Your task to perform on an android device: Go to Wikipedia Image 0: 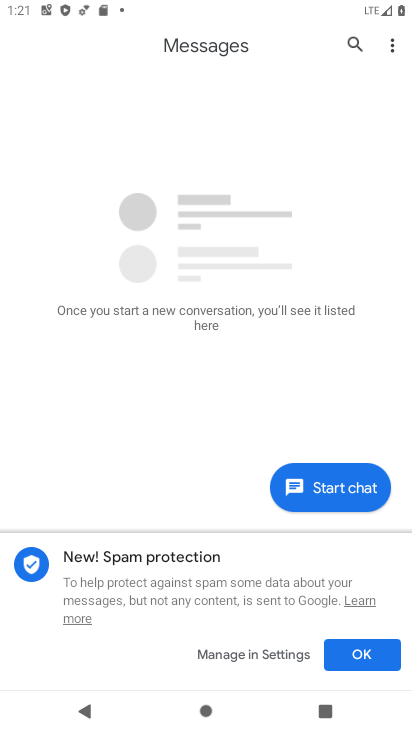
Step 0: press home button
Your task to perform on an android device: Go to Wikipedia Image 1: 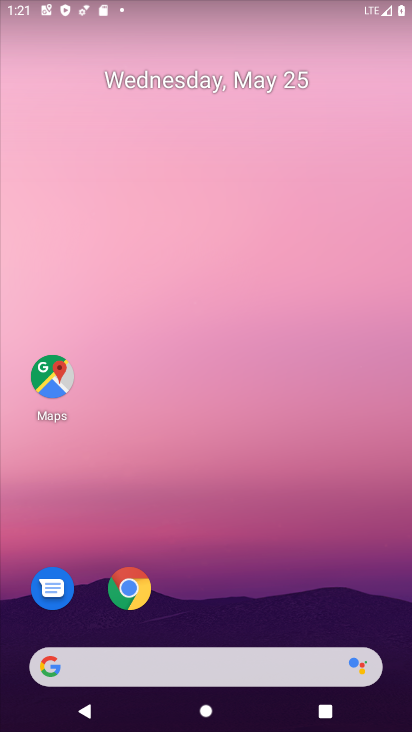
Step 1: click (136, 590)
Your task to perform on an android device: Go to Wikipedia Image 2: 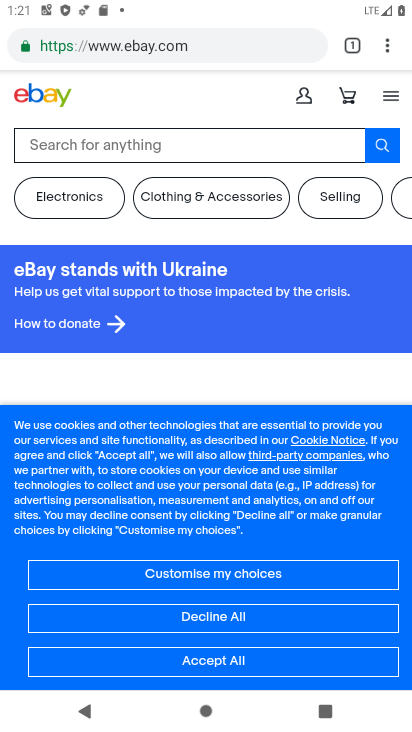
Step 2: click (94, 50)
Your task to perform on an android device: Go to Wikipedia Image 3: 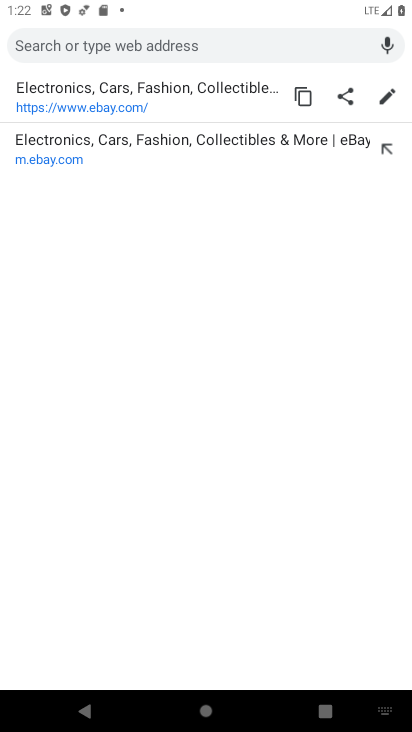
Step 3: type "wikipedia"
Your task to perform on an android device: Go to Wikipedia Image 4: 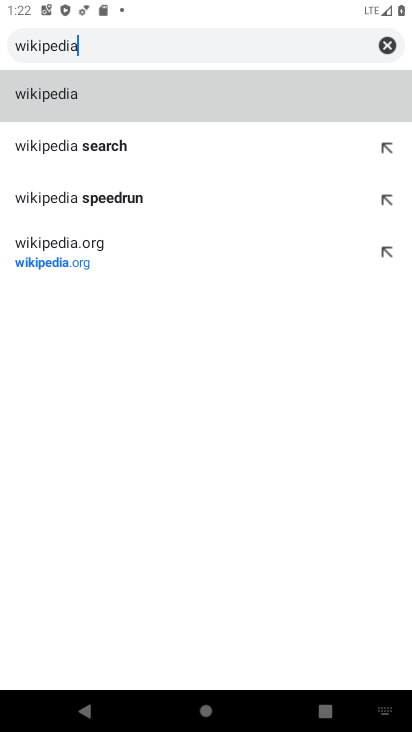
Step 4: click (55, 93)
Your task to perform on an android device: Go to Wikipedia Image 5: 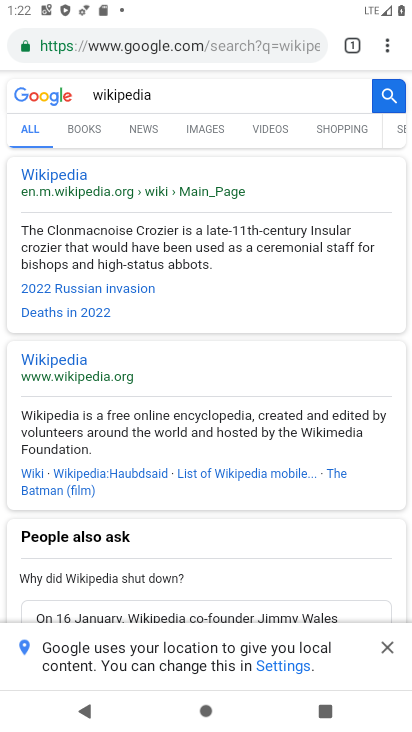
Step 5: click (57, 388)
Your task to perform on an android device: Go to Wikipedia Image 6: 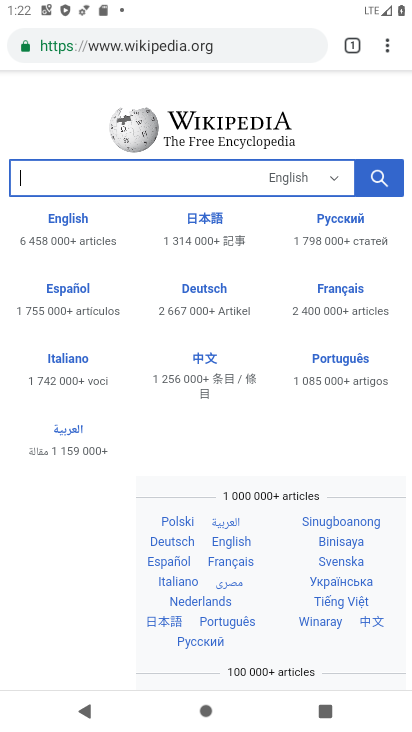
Step 6: task complete